Your task to perform on an android device: Open the map Image 0: 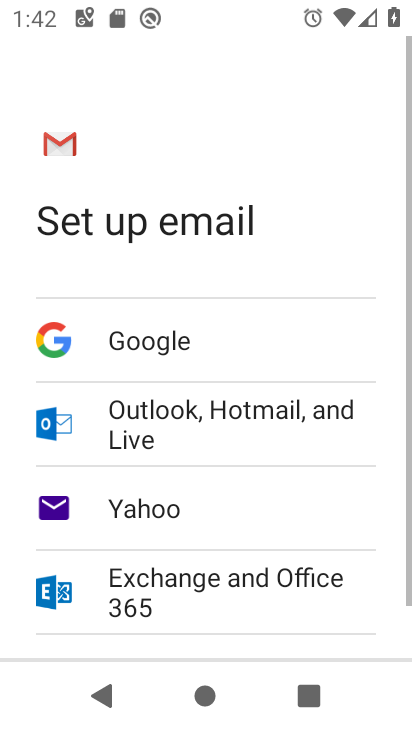
Step 0: press home button
Your task to perform on an android device: Open the map Image 1: 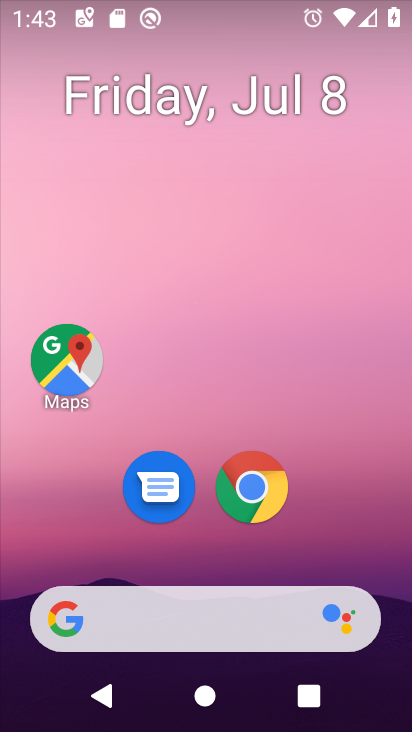
Step 1: drag from (372, 503) to (359, 184)
Your task to perform on an android device: Open the map Image 2: 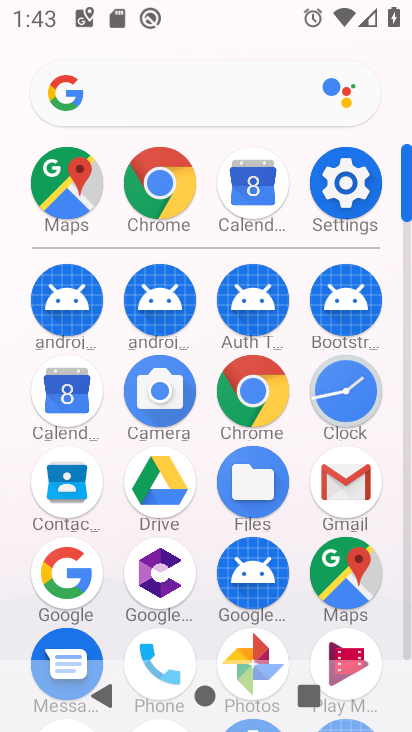
Step 2: click (350, 573)
Your task to perform on an android device: Open the map Image 3: 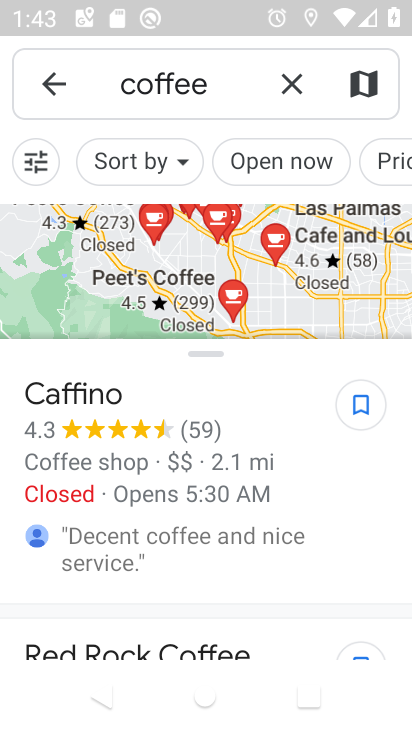
Step 3: task complete